Your task to perform on an android device: all mails in gmail Image 0: 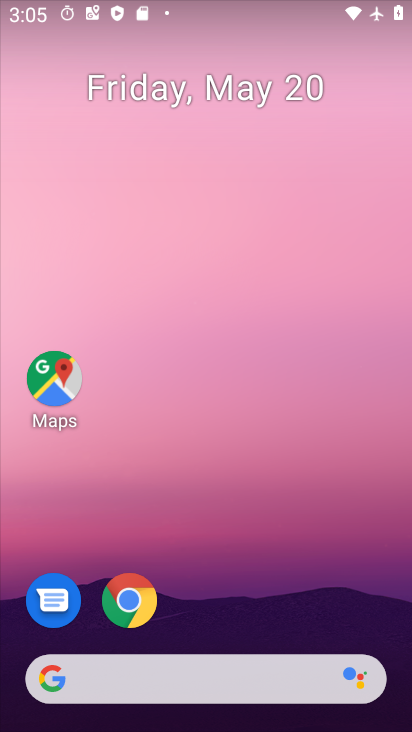
Step 0: drag from (224, 524) to (224, 84)
Your task to perform on an android device: all mails in gmail Image 1: 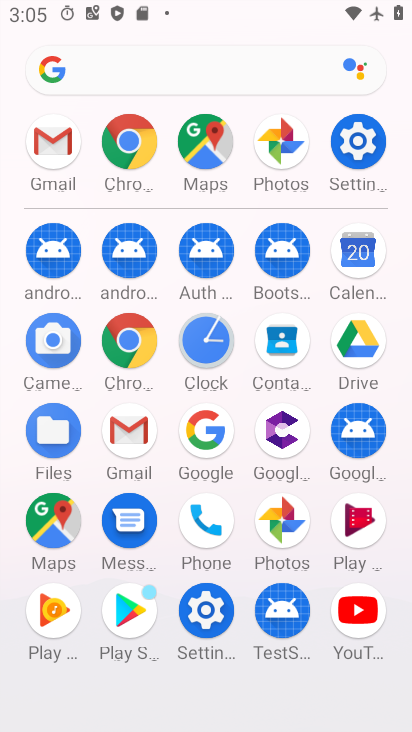
Step 1: drag from (0, 580) to (10, 283)
Your task to perform on an android device: all mails in gmail Image 2: 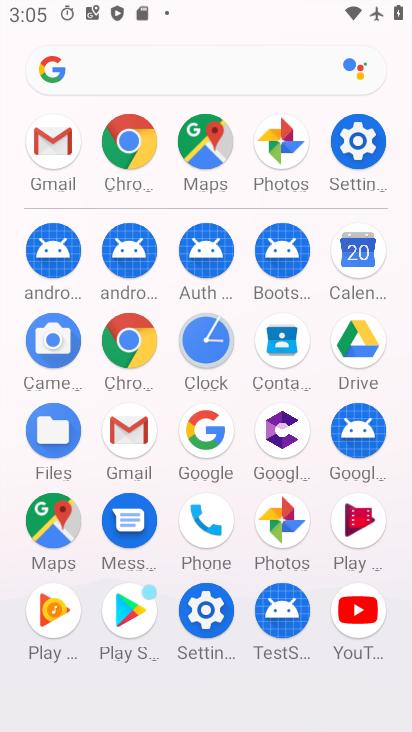
Step 2: click (127, 424)
Your task to perform on an android device: all mails in gmail Image 3: 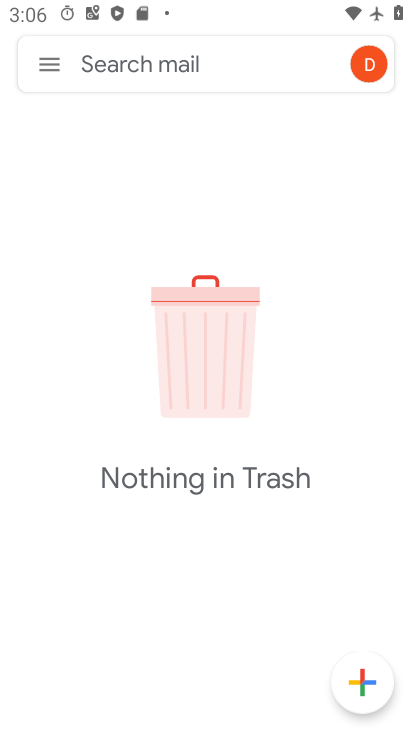
Step 3: click (39, 65)
Your task to perform on an android device: all mails in gmail Image 4: 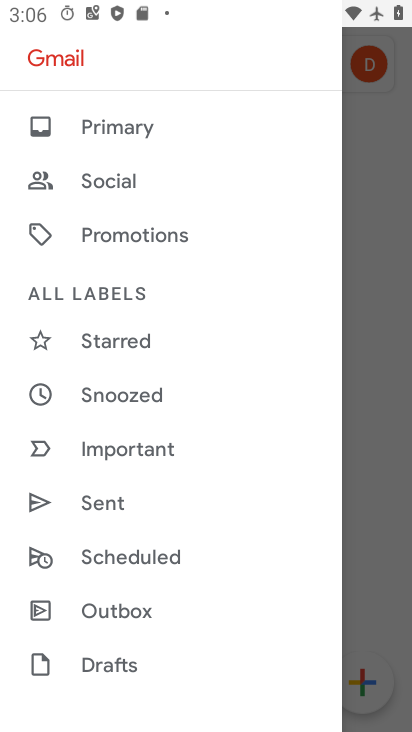
Step 4: drag from (208, 230) to (197, 661)
Your task to perform on an android device: all mails in gmail Image 5: 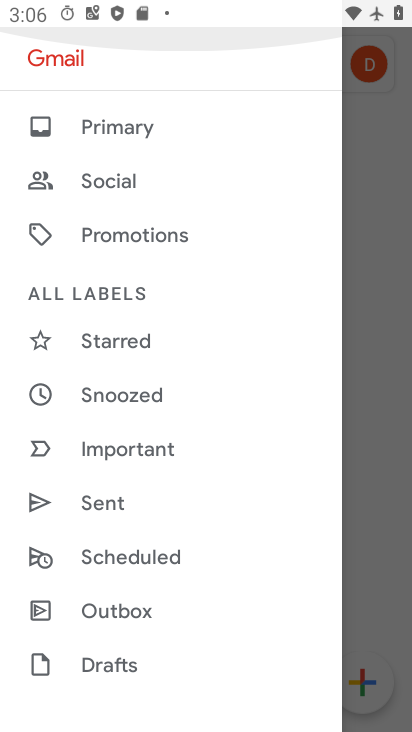
Step 5: drag from (194, 648) to (195, 250)
Your task to perform on an android device: all mails in gmail Image 6: 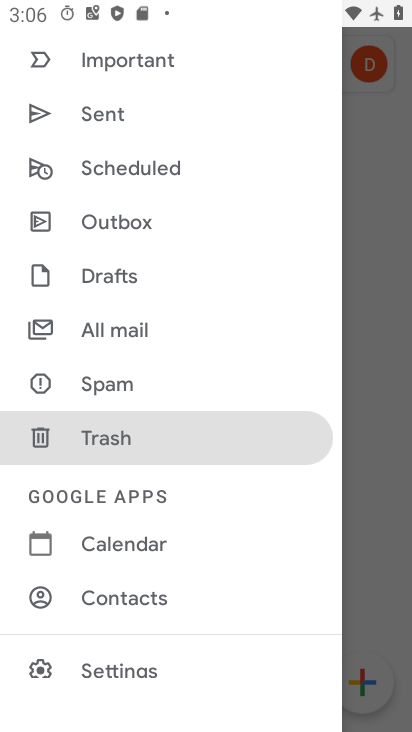
Step 6: click (145, 326)
Your task to perform on an android device: all mails in gmail Image 7: 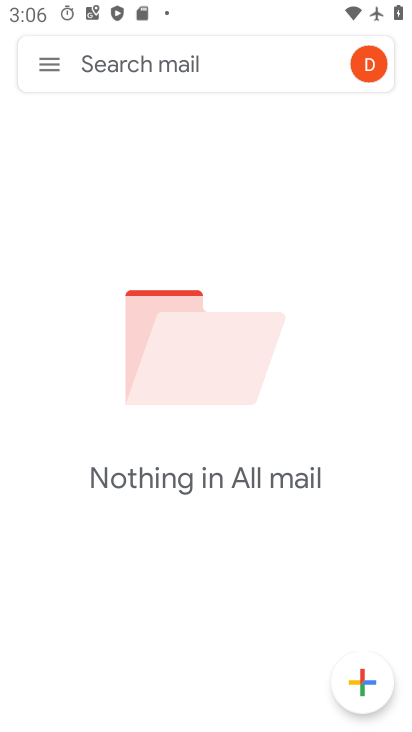
Step 7: task complete